Your task to perform on an android device: change the clock display to show seconds Image 0: 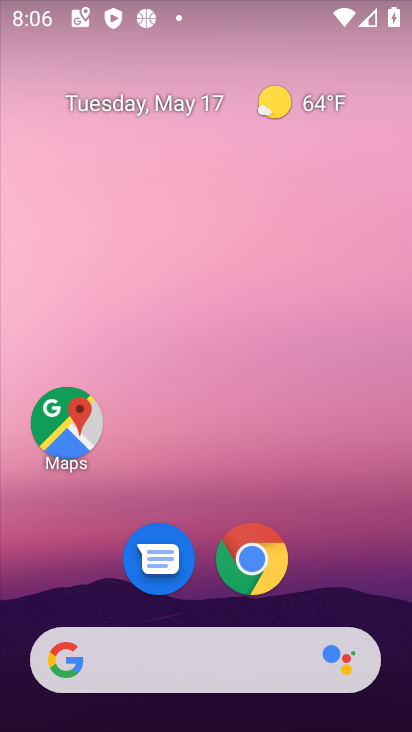
Step 0: drag from (227, 614) to (177, 23)
Your task to perform on an android device: change the clock display to show seconds Image 1: 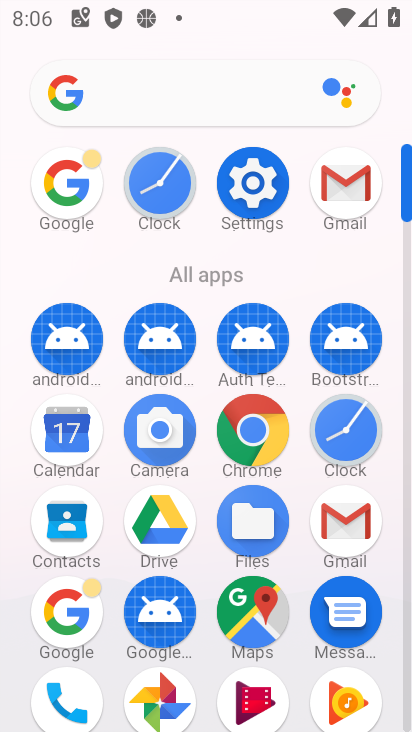
Step 1: click (342, 420)
Your task to perform on an android device: change the clock display to show seconds Image 2: 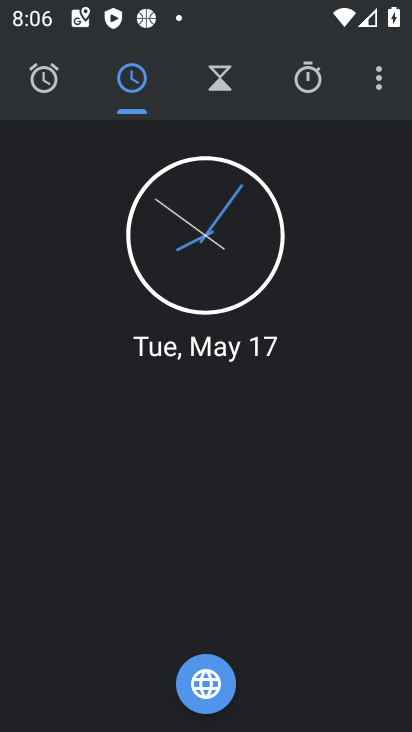
Step 2: click (369, 91)
Your task to perform on an android device: change the clock display to show seconds Image 3: 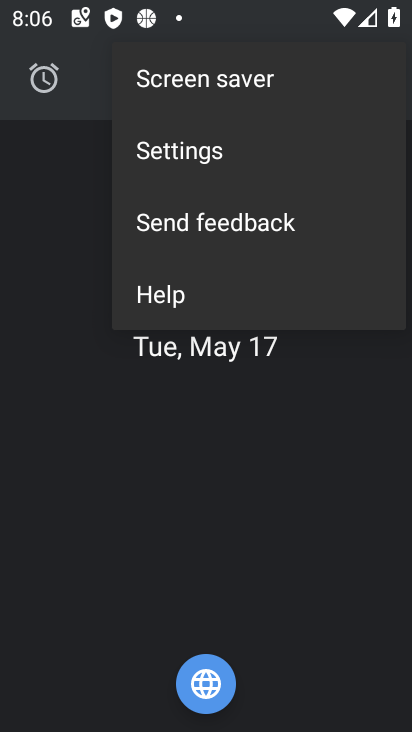
Step 3: click (171, 155)
Your task to perform on an android device: change the clock display to show seconds Image 4: 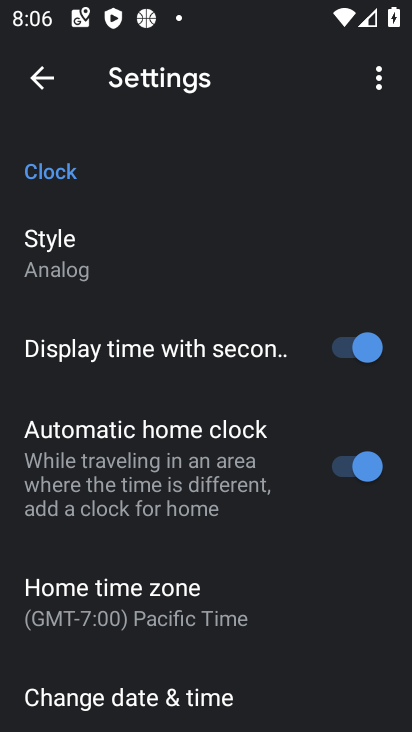
Step 4: click (347, 371)
Your task to perform on an android device: change the clock display to show seconds Image 5: 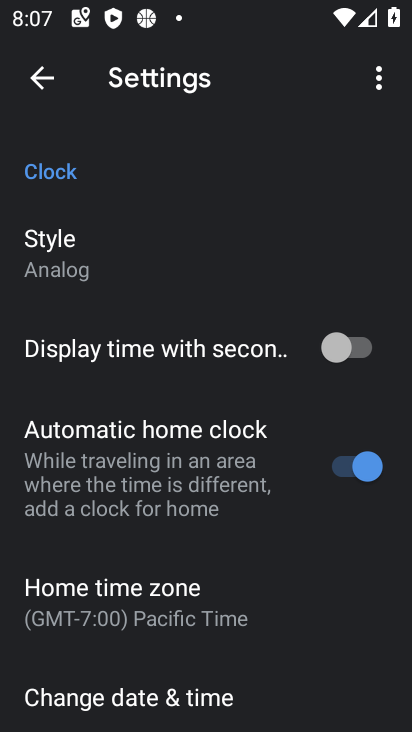
Step 5: task complete